Your task to perform on an android device: Search for Mexican restaurants on Maps Image 0: 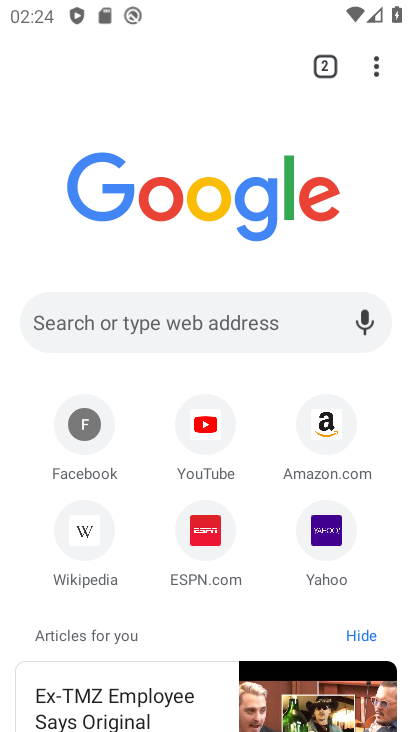
Step 0: press home button
Your task to perform on an android device: Search for Mexican restaurants on Maps Image 1: 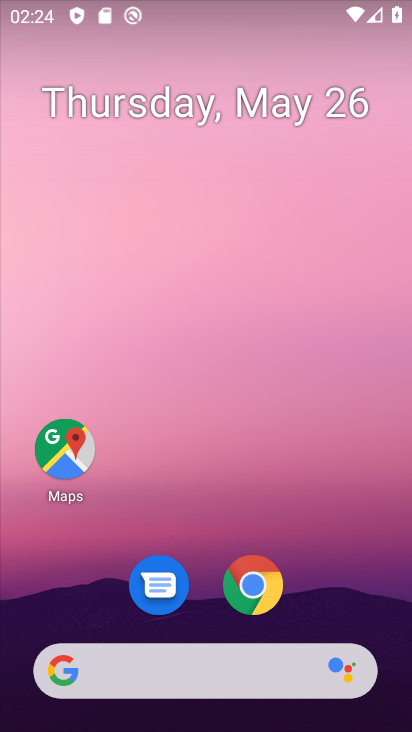
Step 1: click (64, 454)
Your task to perform on an android device: Search for Mexican restaurants on Maps Image 2: 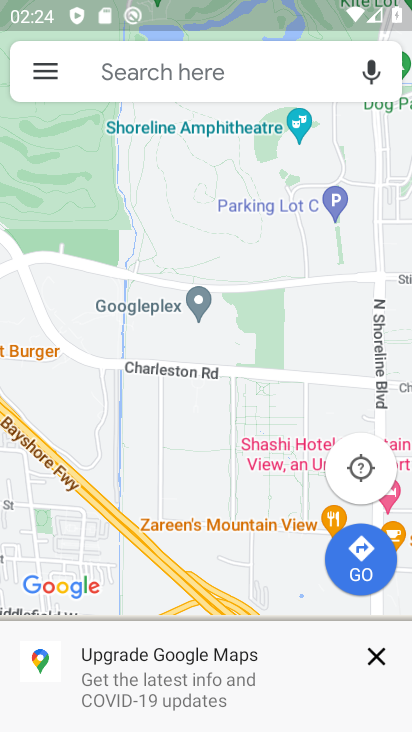
Step 2: click (168, 80)
Your task to perform on an android device: Search for Mexican restaurants on Maps Image 3: 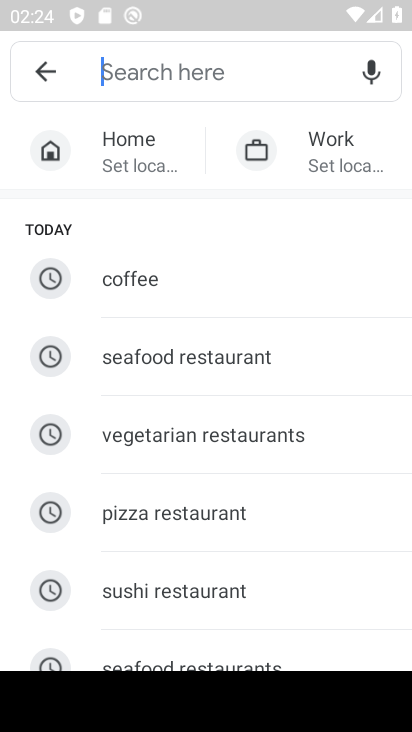
Step 3: drag from (226, 551) to (243, 269)
Your task to perform on an android device: Search for Mexican restaurants on Maps Image 4: 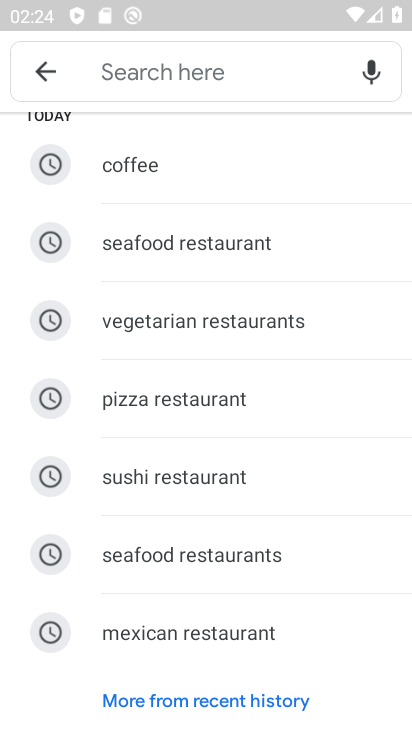
Step 4: click (201, 629)
Your task to perform on an android device: Search for Mexican restaurants on Maps Image 5: 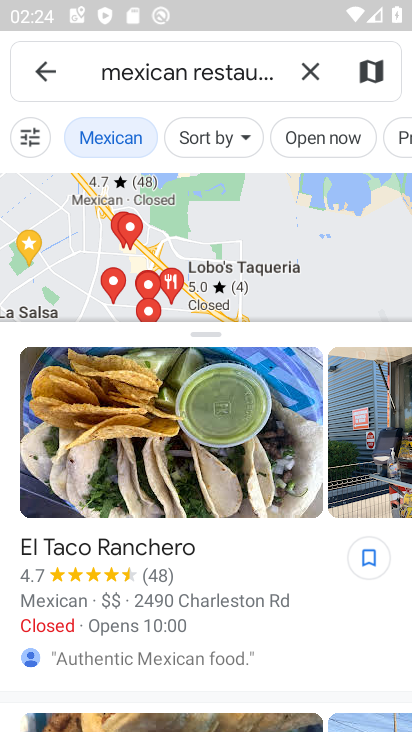
Step 5: task complete